Your task to perform on an android device: toggle airplane mode Image 0: 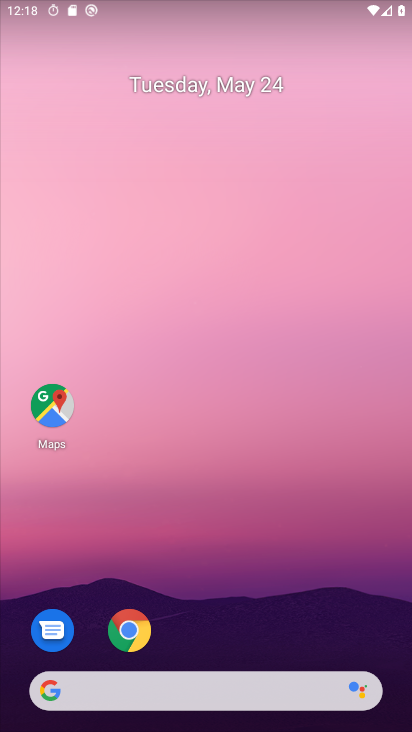
Step 0: drag from (229, 637) to (234, 24)
Your task to perform on an android device: toggle airplane mode Image 1: 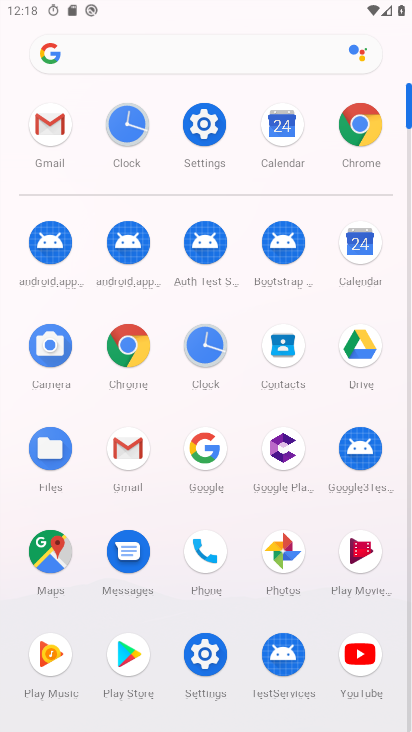
Step 1: click (194, 137)
Your task to perform on an android device: toggle airplane mode Image 2: 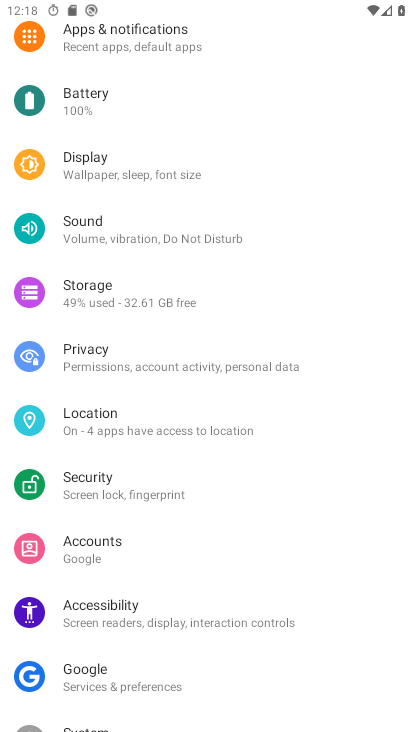
Step 2: drag from (197, 146) to (199, 670)
Your task to perform on an android device: toggle airplane mode Image 3: 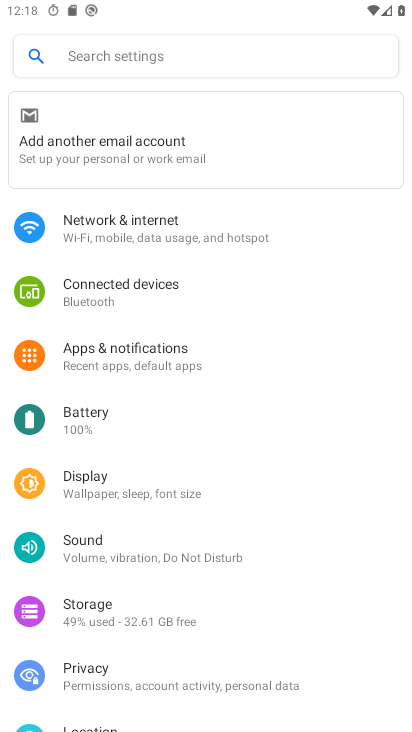
Step 3: click (178, 232)
Your task to perform on an android device: toggle airplane mode Image 4: 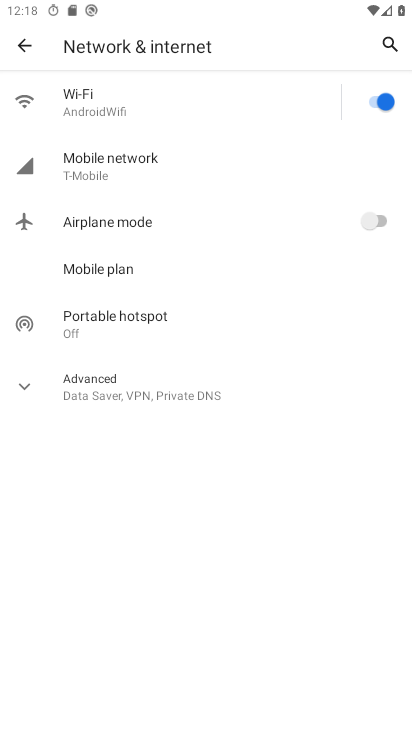
Step 4: click (390, 215)
Your task to perform on an android device: toggle airplane mode Image 5: 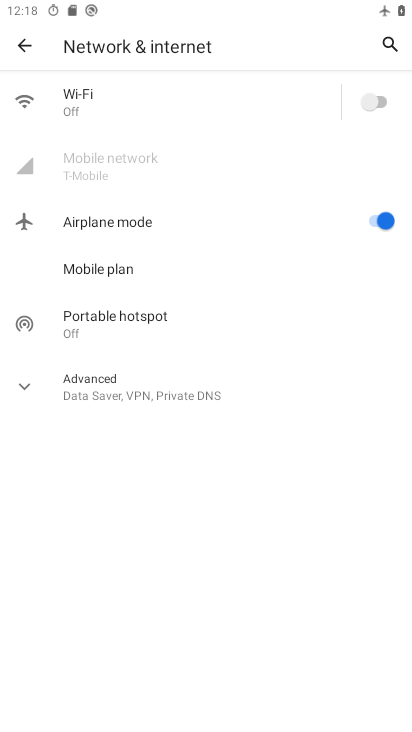
Step 5: task complete